Your task to perform on an android device: Open the clock Image 0: 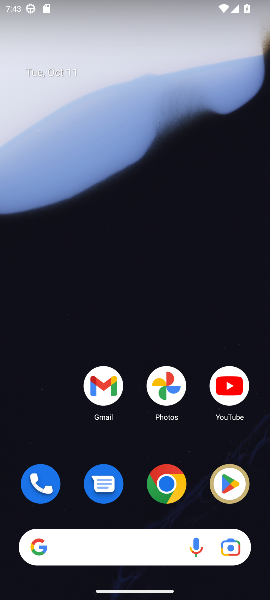
Step 0: drag from (125, 550) to (136, 38)
Your task to perform on an android device: Open the clock Image 1: 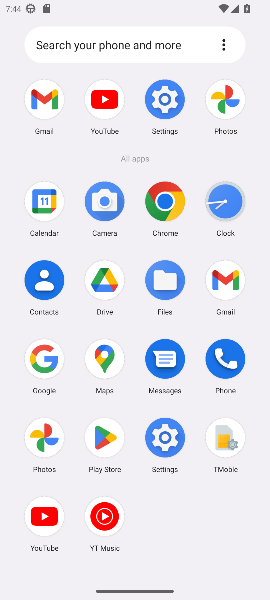
Step 1: click (226, 202)
Your task to perform on an android device: Open the clock Image 2: 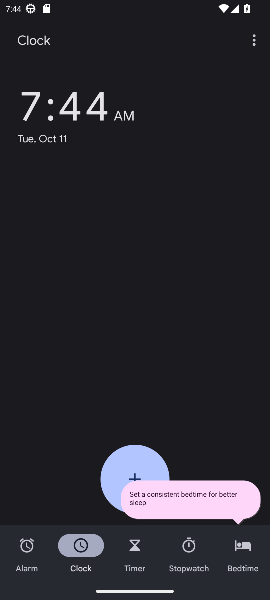
Step 2: task complete